Your task to perform on an android device: Open maps Image 0: 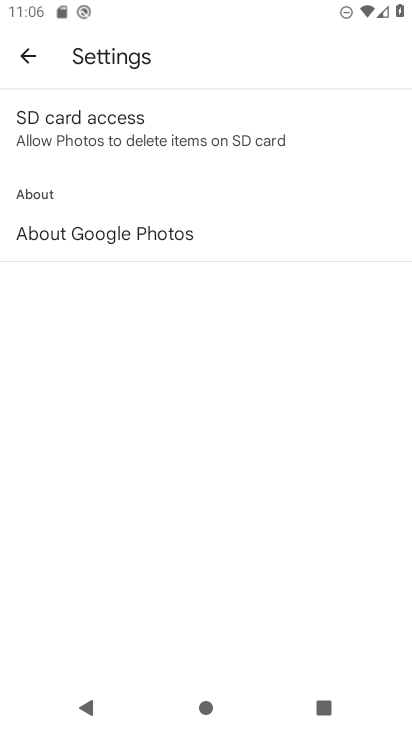
Step 0: press home button
Your task to perform on an android device: Open maps Image 1: 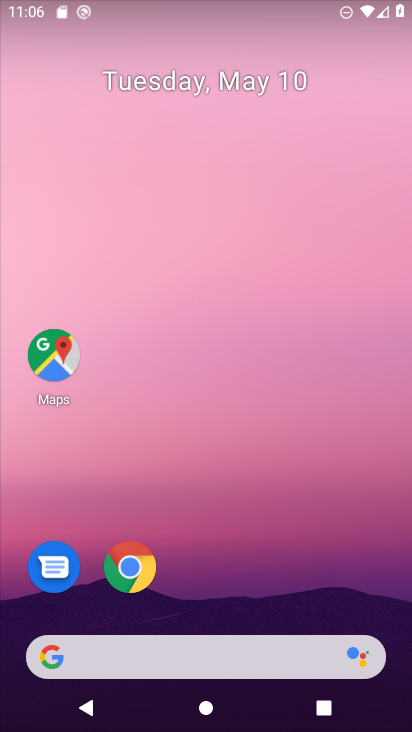
Step 1: click (42, 373)
Your task to perform on an android device: Open maps Image 2: 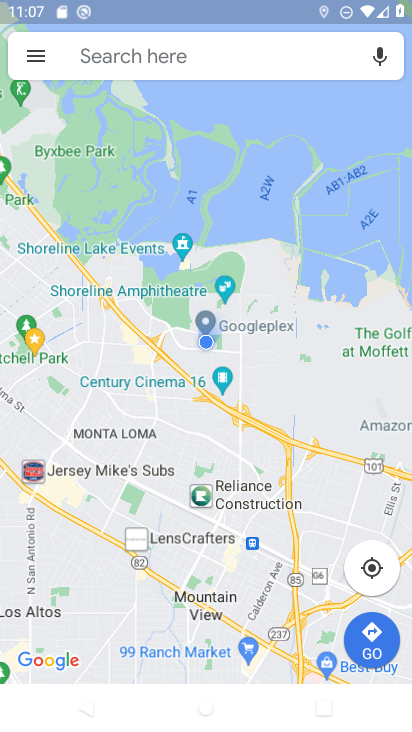
Step 2: task complete